Your task to perform on an android device: Search for Italian restaurants on Maps Image 0: 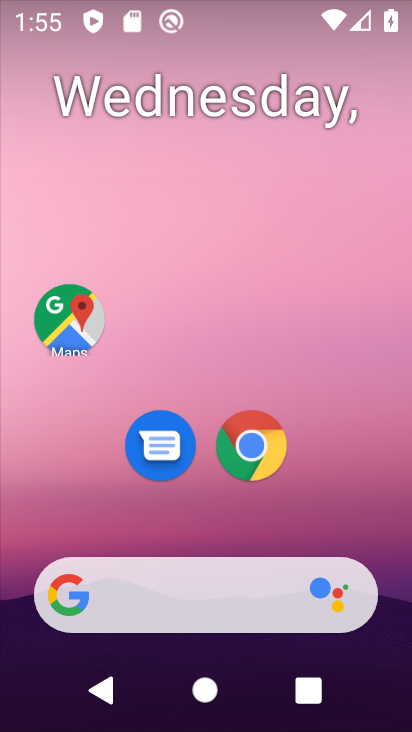
Step 0: click (95, 330)
Your task to perform on an android device: Search for Italian restaurants on Maps Image 1: 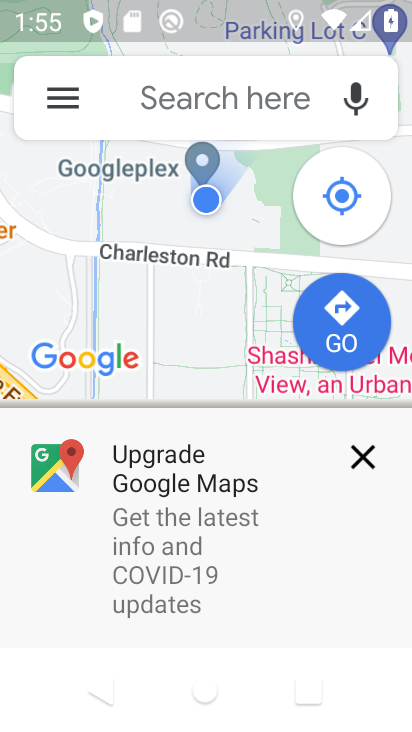
Step 1: click (201, 98)
Your task to perform on an android device: Search for Italian restaurants on Maps Image 2: 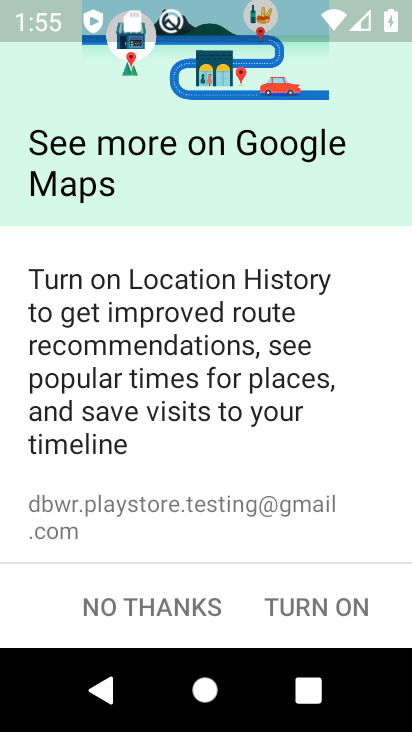
Step 2: click (308, 612)
Your task to perform on an android device: Search for Italian restaurants on Maps Image 3: 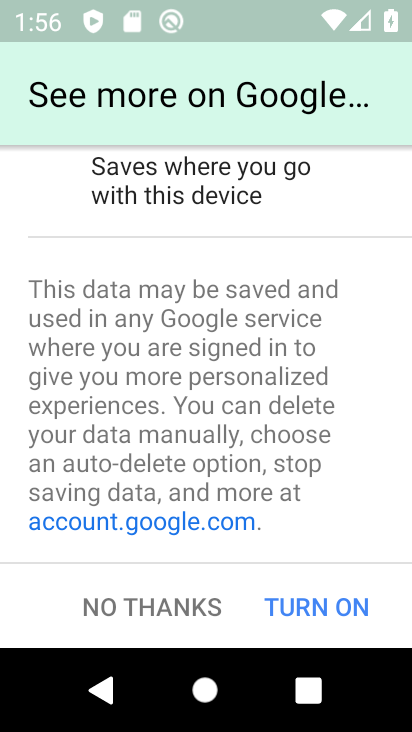
Step 3: click (308, 612)
Your task to perform on an android device: Search for Italian restaurants on Maps Image 4: 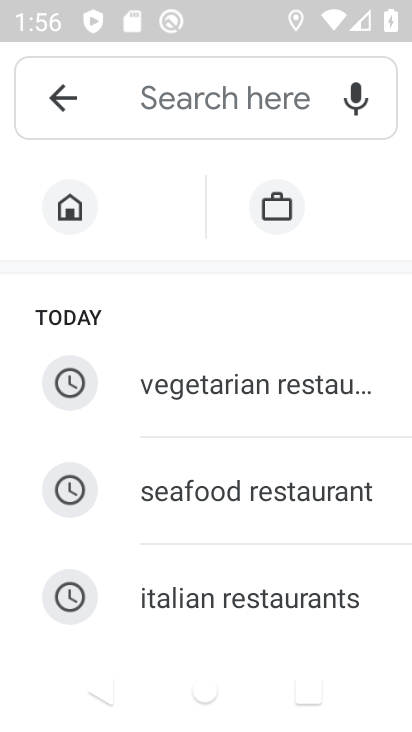
Step 4: click (218, 607)
Your task to perform on an android device: Search for Italian restaurants on Maps Image 5: 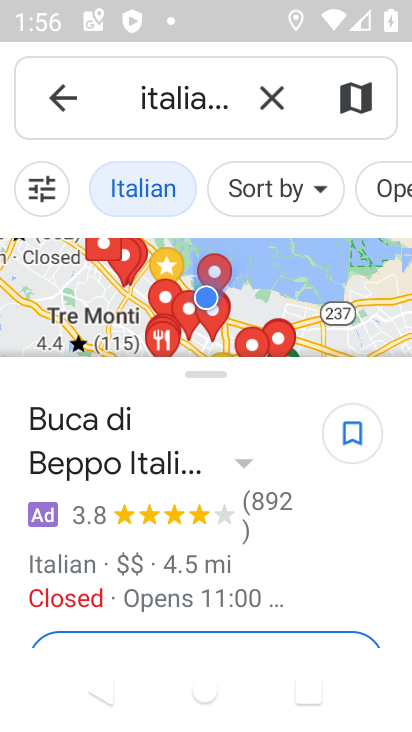
Step 5: task complete